Your task to perform on an android device: Search for Italian restaurants on Maps Image 0: 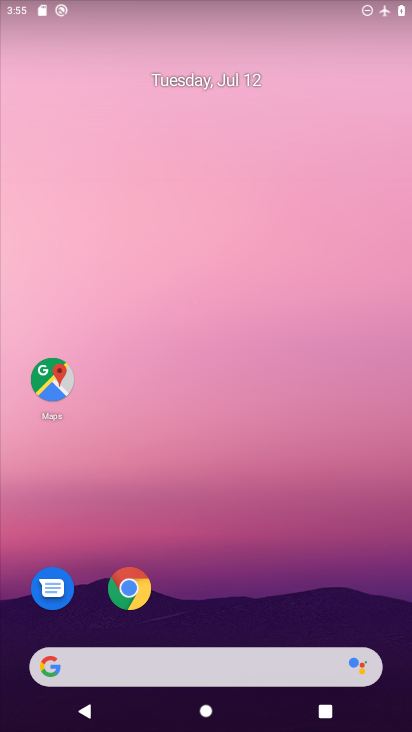
Step 0: drag from (294, 624) to (241, 0)
Your task to perform on an android device: Search for Italian restaurants on Maps Image 1: 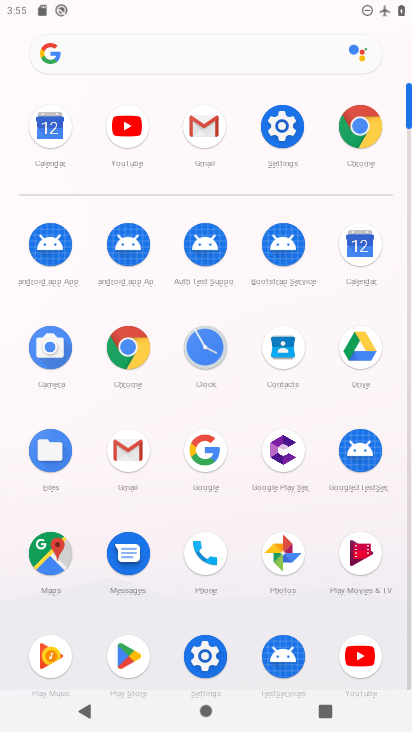
Step 1: click (49, 556)
Your task to perform on an android device: Search for Italian restaurants on Maps Image 2: 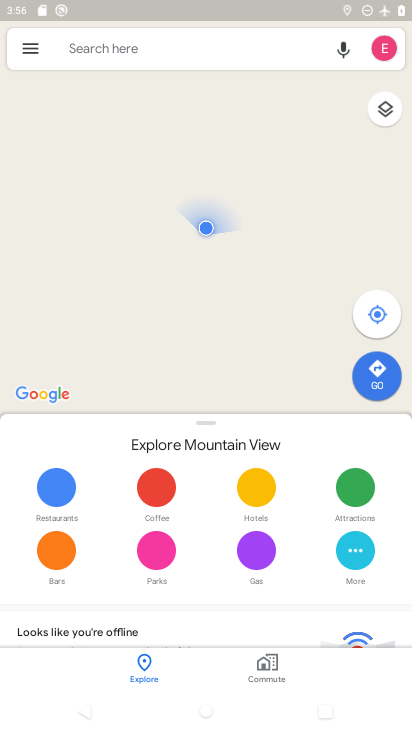
Step 2: click (135, 57)
Your task to perform on an android device: Search for Italian restaurants on Maps Image 3: 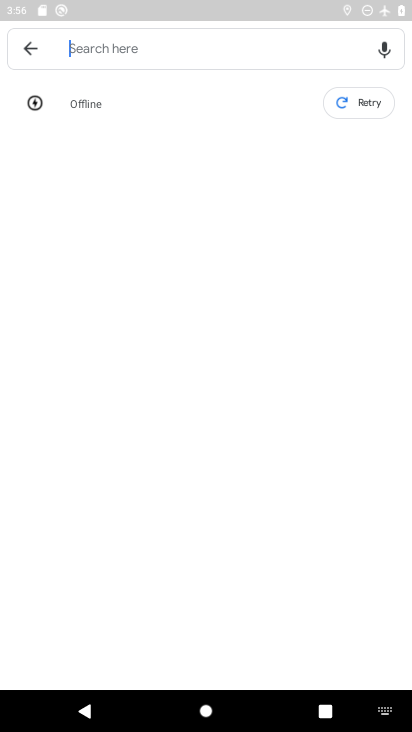
Step 3: click (201, 64)
Your task to perform on an android device: Search for Italian restaurants on Maps Image 4: 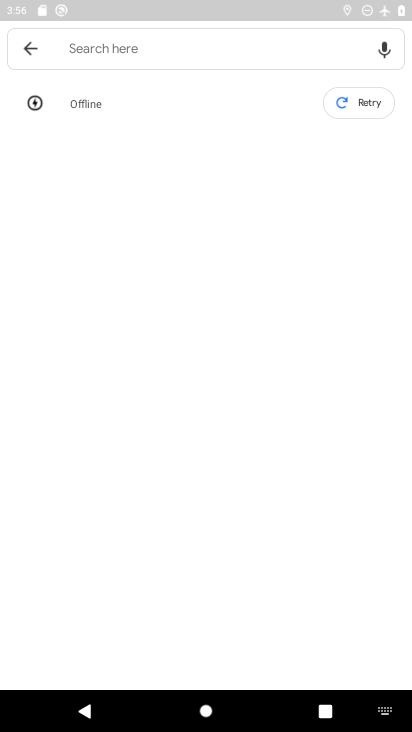
Step 4: type "Italian restaurants"
Your task to perform on an android device: Search for Italian restaurants on Maps Image 5: 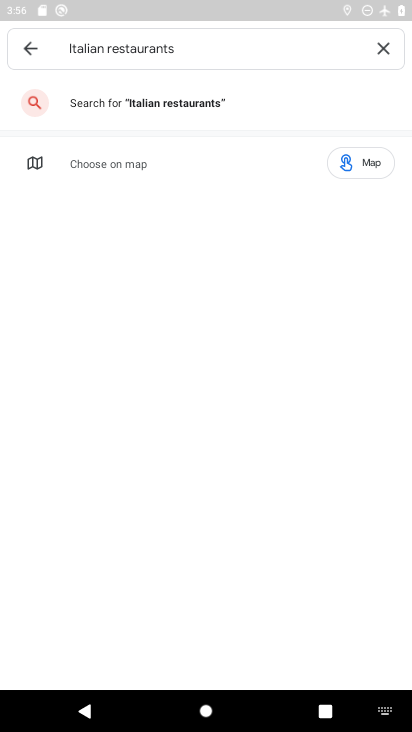
Step 5: click (215, 109)
Your task to perform on an android device: Search for Italian restaurants on Maps Image 6: 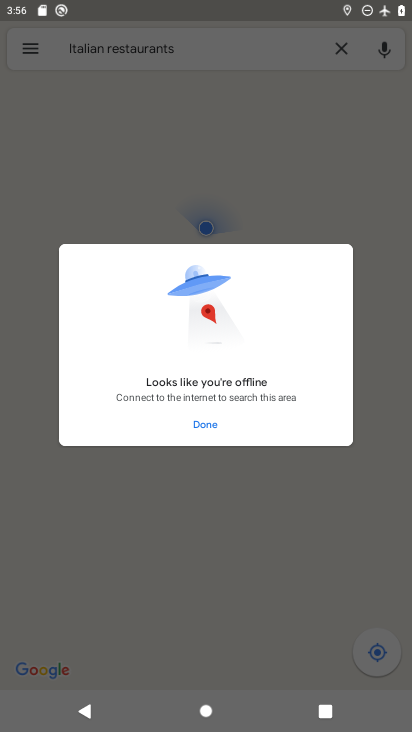
Step 6: task complete